Your task to perform on an android device: Open calendar and show me the third week of next month Image 0: 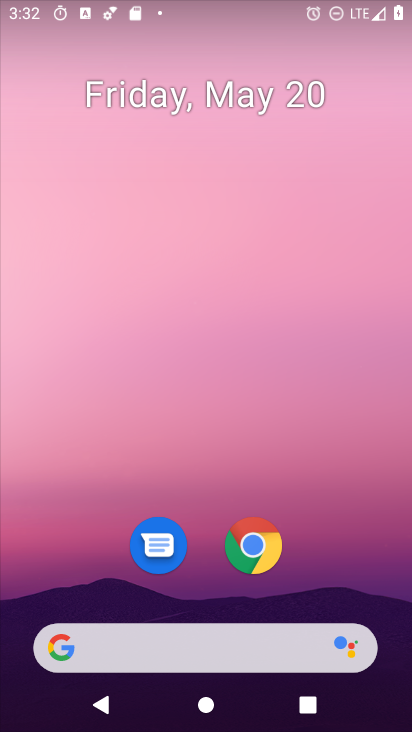
Step 0: drag from (178, 622) to (159, 11)
Your task to perform on an android device: Open calendar and show me the third week of next month Image 1: 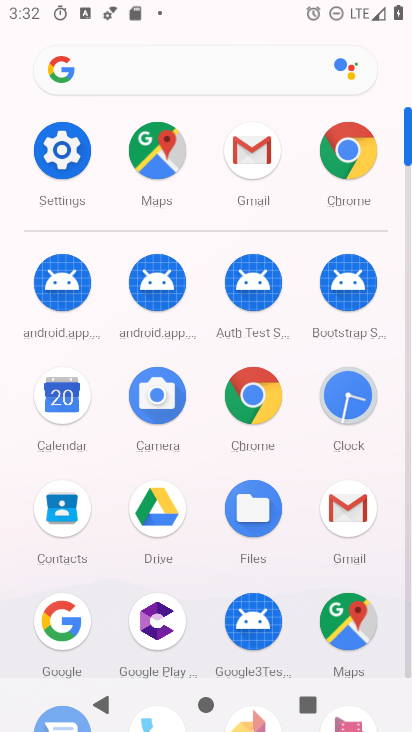
Step 1: click (50, 409)
Your task to perform on an android device: Open calendar and show me the third week of next month Image 2: 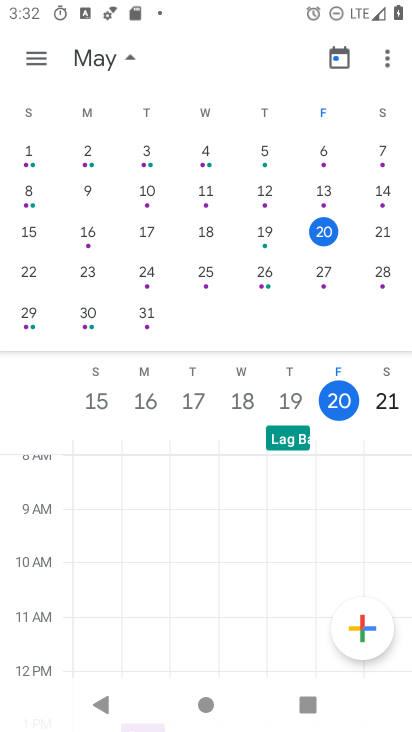
Step 2: drag from (392, 201) to (4, 298)
Your task to perform on an android device: Open calendar and show me the third week of next month Image 3: 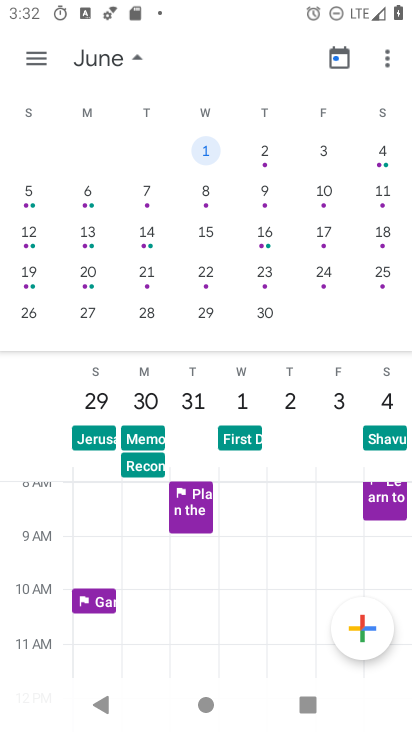
Step 3: click (319, 231)
Your task to perform on an android device: Open calendar and show me the third week of next month Image 4: 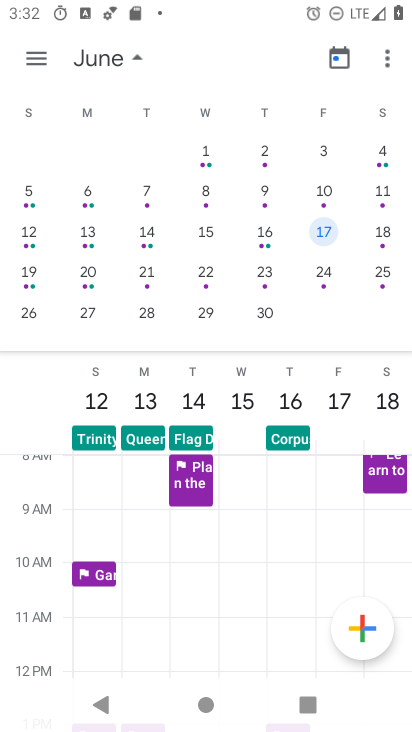
Step 4: task complete